Your task to perform on an android device: check battery use Image 0: 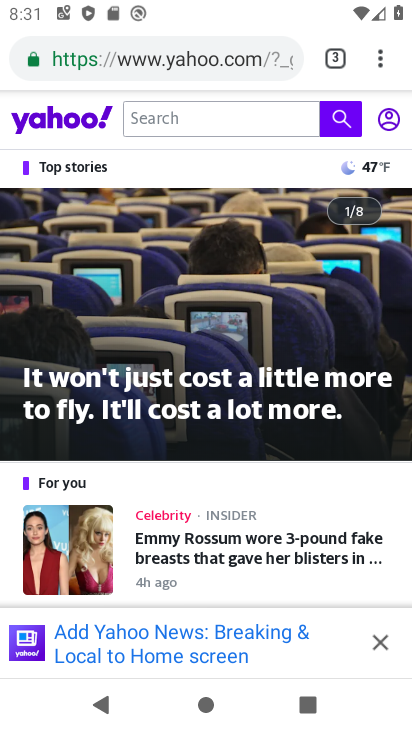
Step 0: press home button
Your task to perform on an android device: check battery use Image 1: 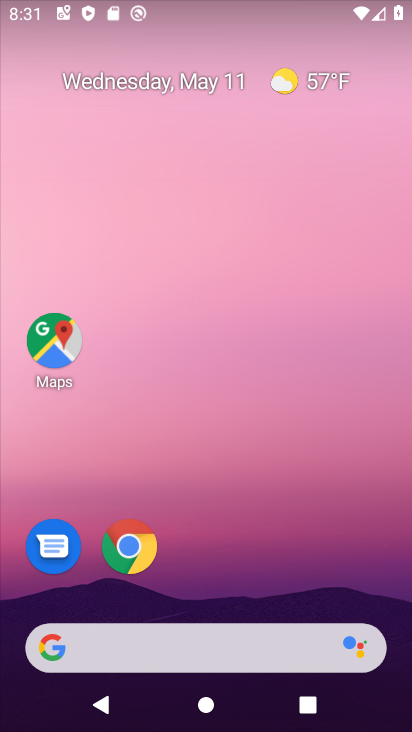
Step 1: drag from (195, 568) to (191, 227)
Your task to perform on an android device: check battery use Image 2: 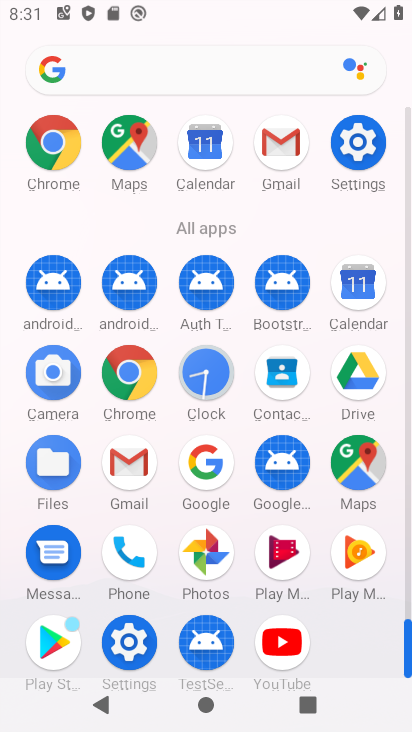
Step 2: click (342, 145)
Your task to perform on an android device: check battery use Image 3: 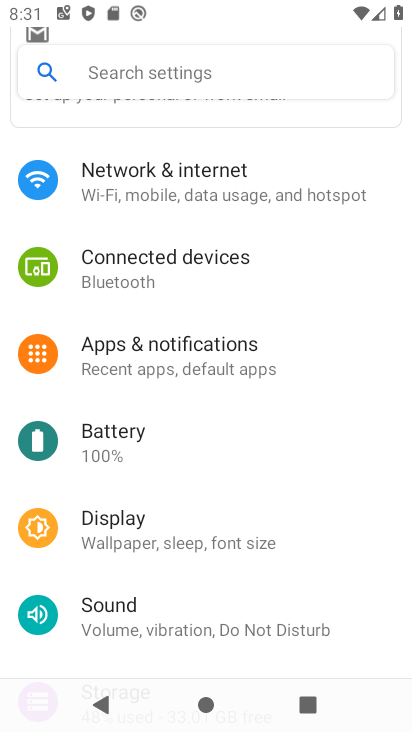
Step 3: click (210, 445)
Your task to perform on an android device: check battery use Image 4: 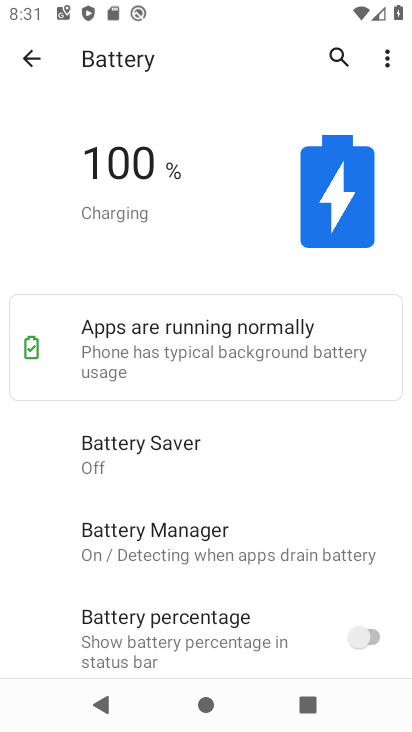
Step 4: task complete